Your task to perform on an android device: What's on my calendar tomorrow? Image 0: 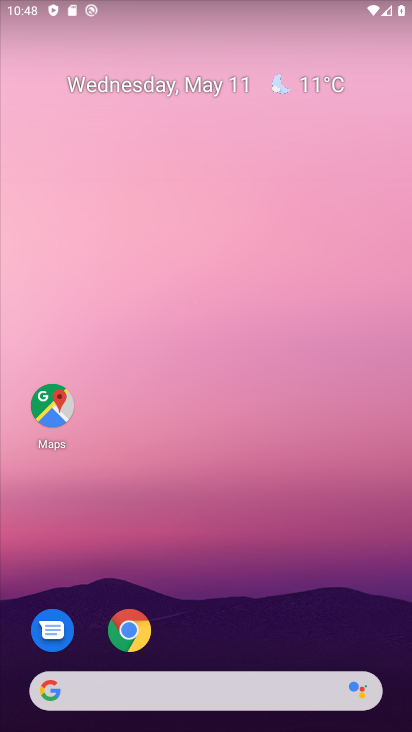
Step 0: drag from (200, 608) to (231, 226)
Your task to perform on an android device: What's on my calendar tomorrow? Image 1: 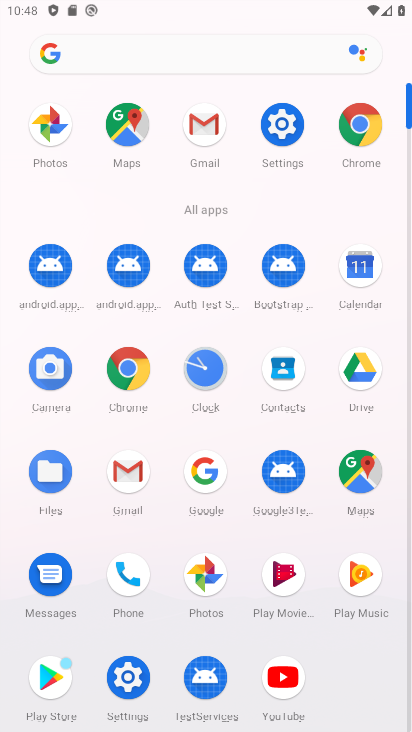
Step 1: click (358, 278)
Your task to perform on an android device: What's on my calendar tomorrow? Image 2: 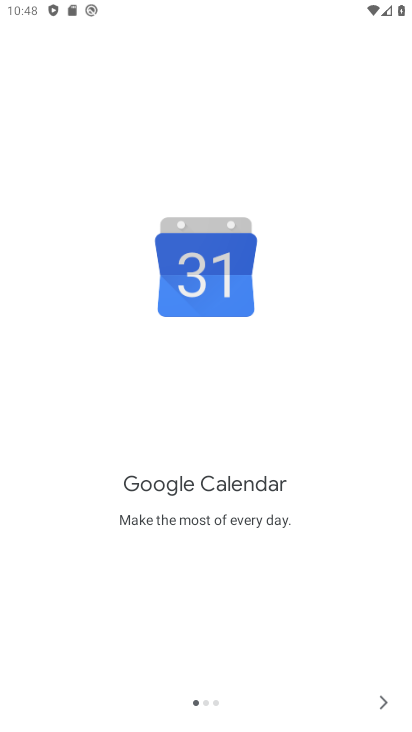
Step 2: click (377, 701)
Your task to perform on an android device: What's on my calendar tomorrow? Image 3: 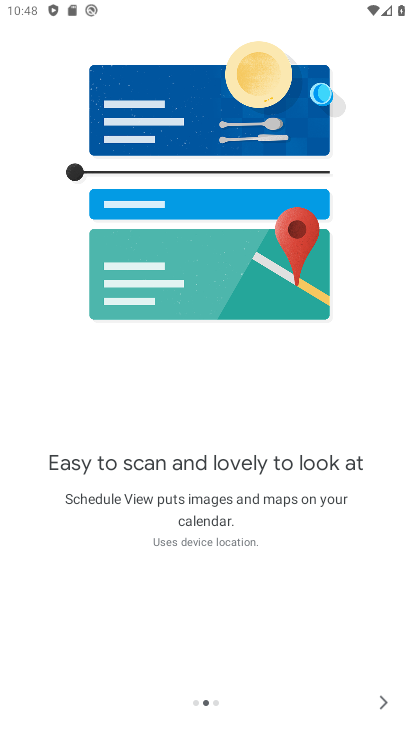
Step 3: click (378, 700)
Your task to perform on an android device: What's on my calendar tomorrow? Image 4: 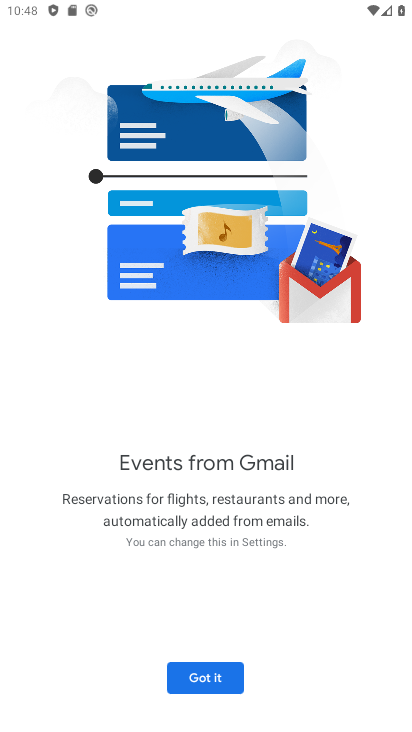
Step 4: click (219, 674)
Your task to perform on an android device: What's on my calendar tomorrow? Image 5: 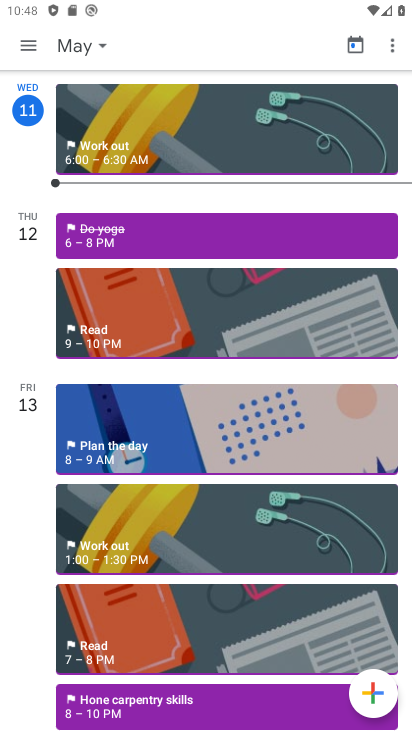
Step 5: click (91, 52)
Your task to perform on an android device: What's on my calendar tomorrow? Image 6: 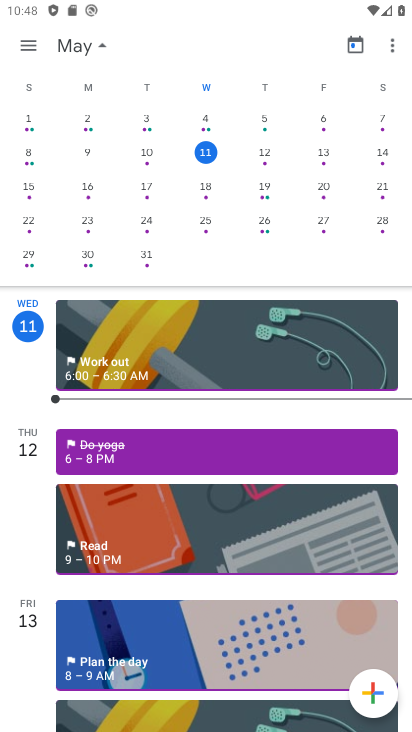
Step 6: click (268, 156)
Your task to perform on an android device: What's on my calendar tomorrow? Image 7: 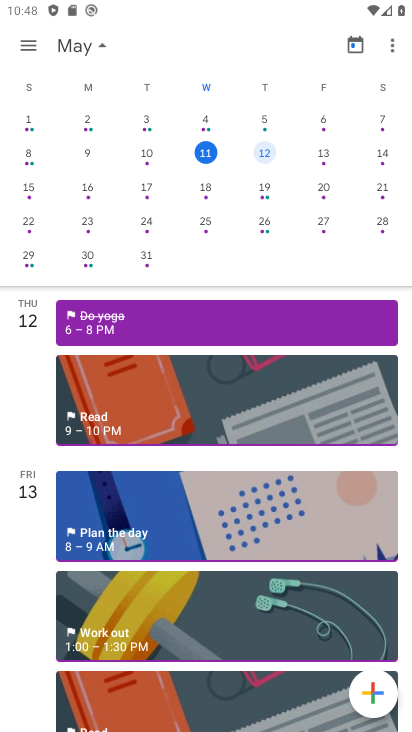
Step 7: click (325, 153)
Your task to perform on an android device: What's on my calendar tomorrow? Image 8: 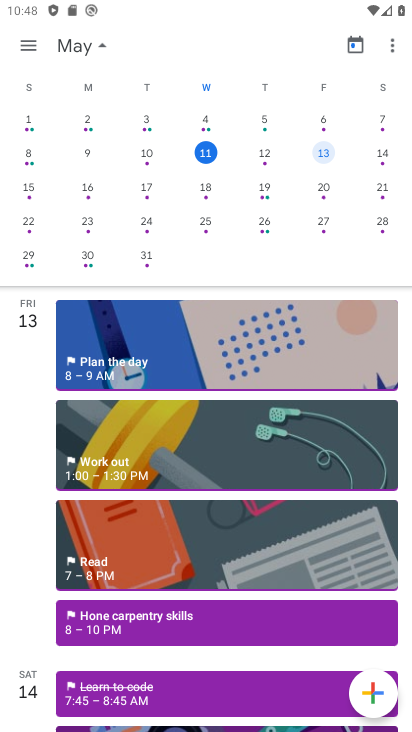
Step 8: task complete